Your task to perform on an android device: change alarm snooze length Image 0: 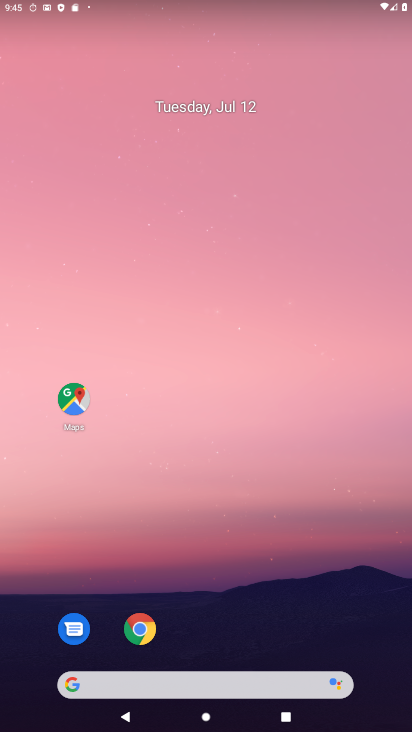
Step 0: drag from (332, 585) to (137, 16)
Your task to perform on an android device: change alarm snooze length Image 1: 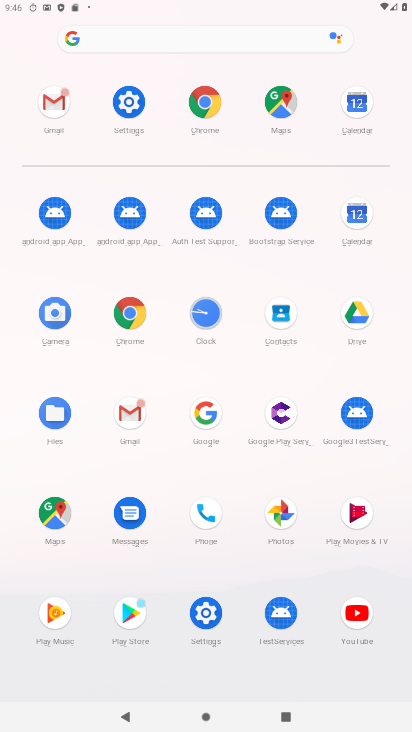
Step 1: click (203, 312)
Your task to perform on an android device: change alarm snooze length Image 2: 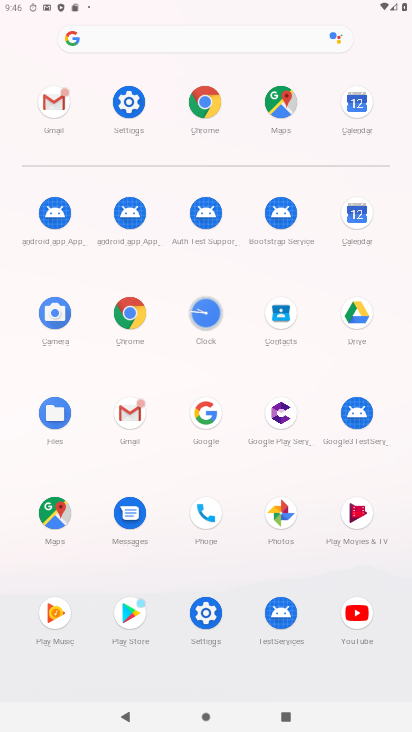
Step 2: click (217, 315)
Your task to perform on an android device: change alarm snooze length Image 3: 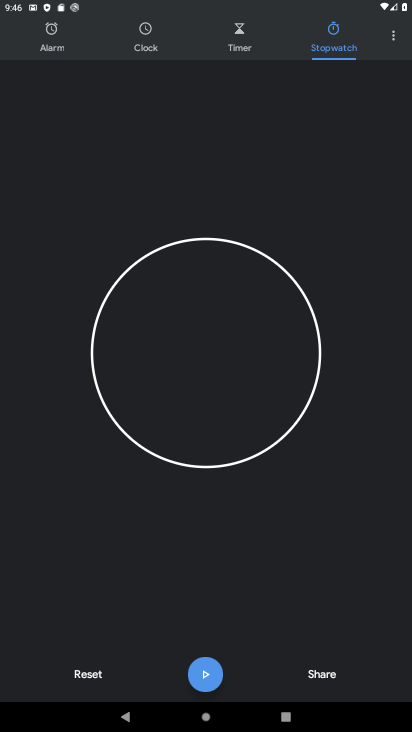
Step 3: click (389, 35)
Your task to perform on an android device: change alarm snooze length Image 4: 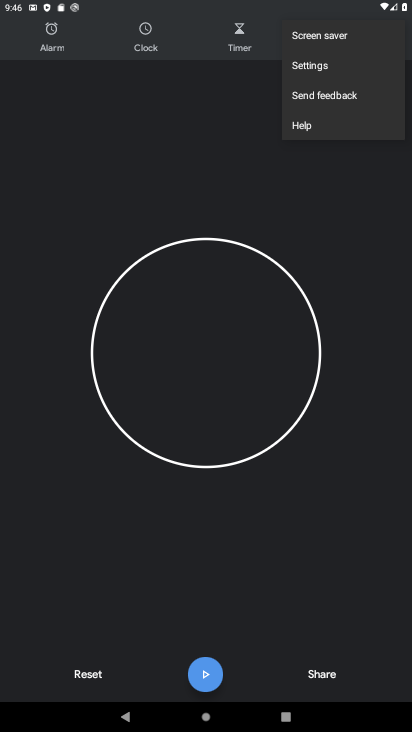
Step 4: click (322, 61)
Your task to perform on an android device: change alarm snooze length Image 5: 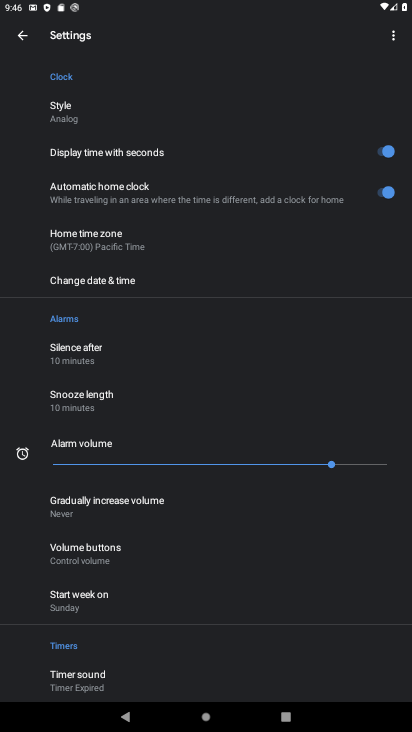
Step 5: click (89, 398)
Your task to perform on an android device: change alarm snooze length Image 6: 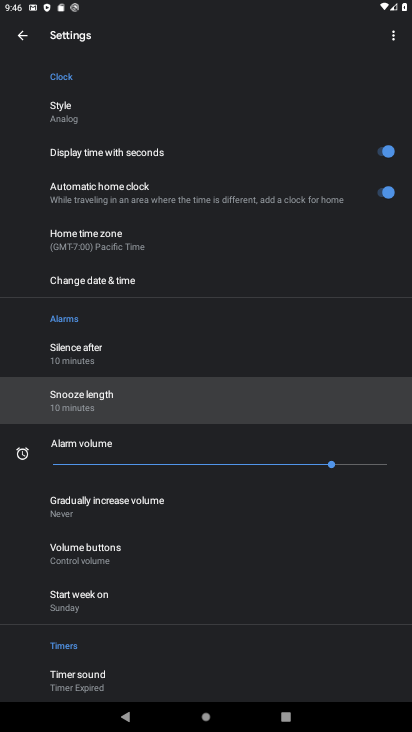
Step 6: click (89, 398)
Your task to perform on an android device: change alarm snooze length Image 7: 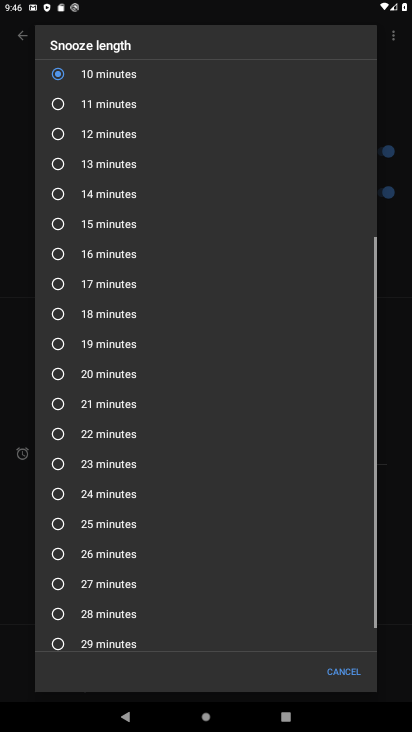
Step 7: click (89, 398)
Your task to perform on an android device: change alarm snooze length Image 8: 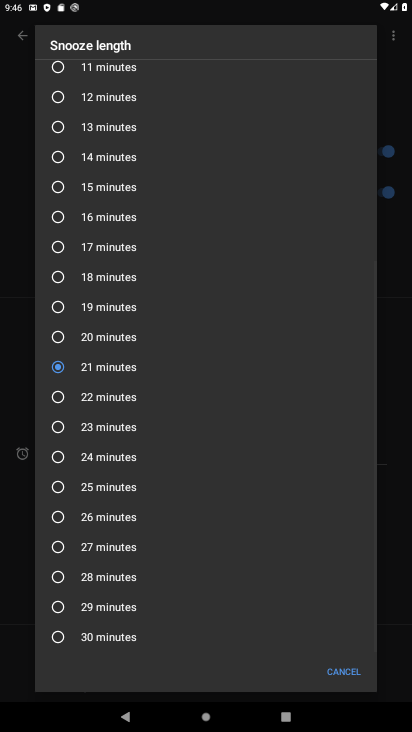
Step 8: click (61, 398)
Your task to perform on an android device: change alarm snooze length Image 9: 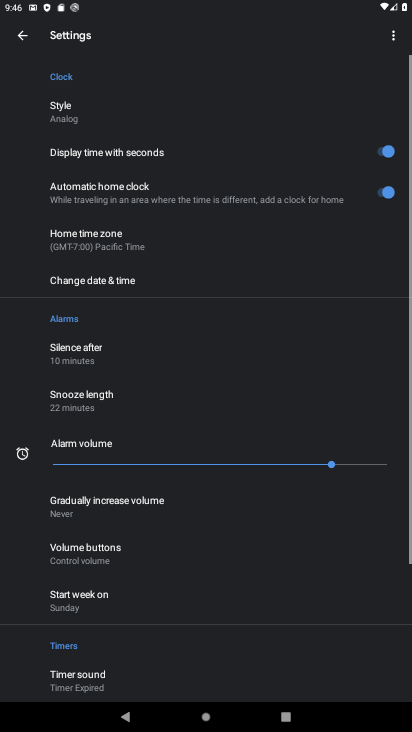
Step 9: task complete